Your task to perform on an android device: check data usage Image 0: 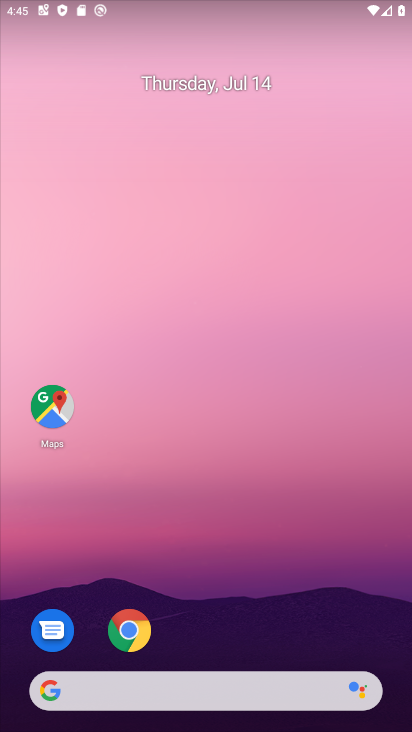
Step 0: drag from (229, 521) to (261, 153)
Your task to perform on an android device: check data usage Image 1: 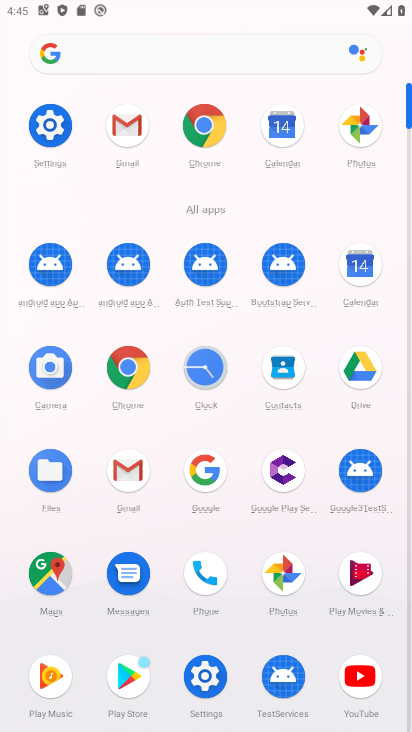
Step 1: click (63, 130)
Your task to perform on an android device: check data usage Image 2: 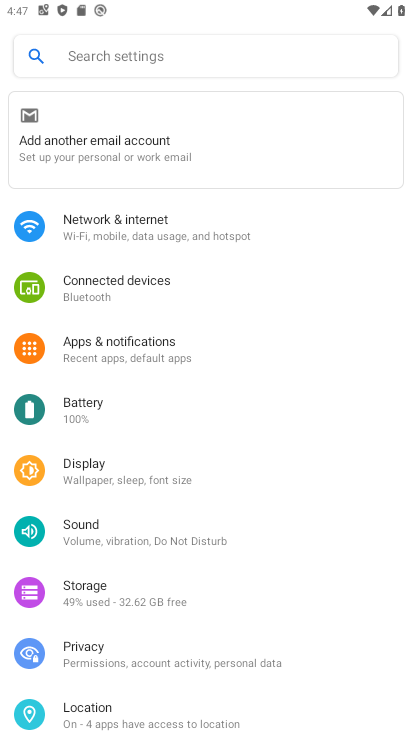
Step 2: click (145, 227)
Your task to perform on an android device: check data usage Image 3: 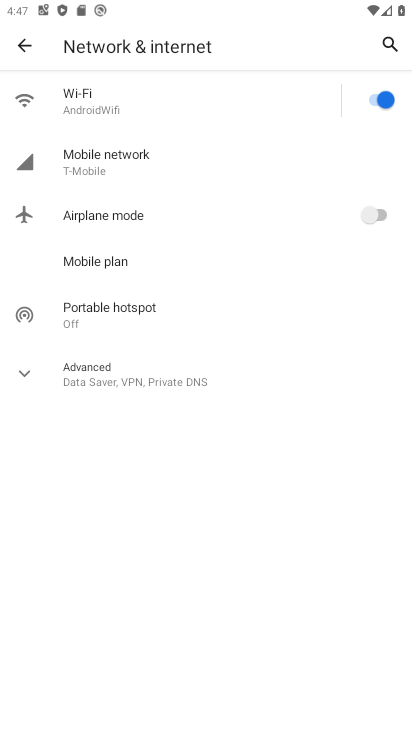
Step 3: click (131, 155)
Your task to perform on an android device: check data usage Image 4: 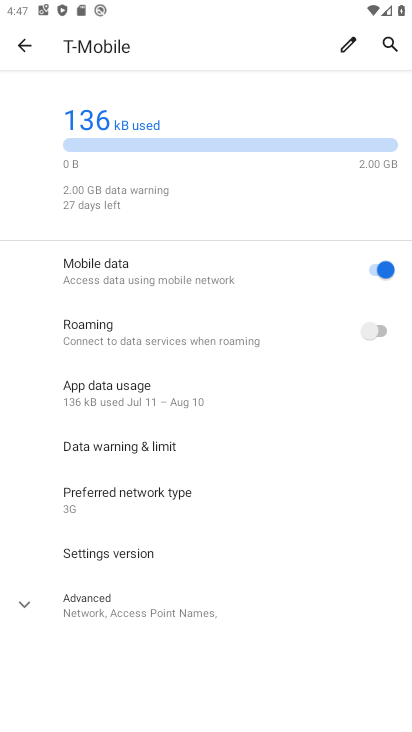
Step 4: click (151, 383)
Your task to perform on an android device: check data usage Image 5: 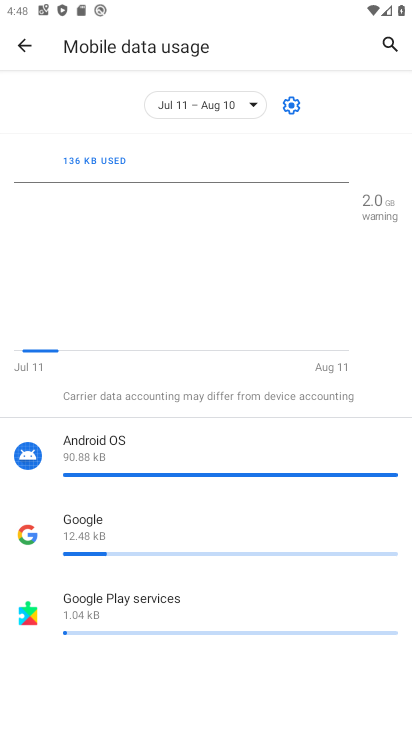
Step 5: task complete